Your task to perform on an android device: turn off notifications settings in the gmail app Image 0: 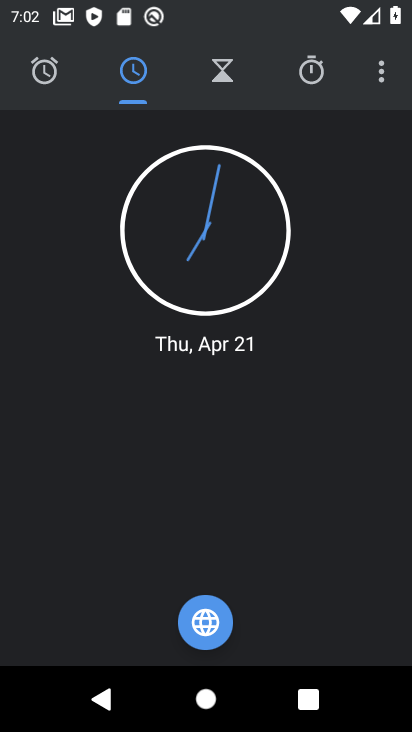
Step 0: press home button
Your task to perform on an android device: turn off notifications settings in the gmail app Image 1: 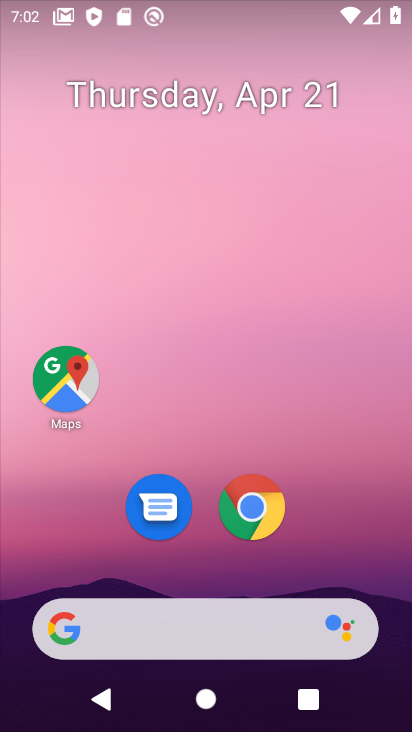
Step 1: drag from (217, 566) to (323, 11)
Your task to perform on an android device: turn off notifications settings in the gmail app Image 2: 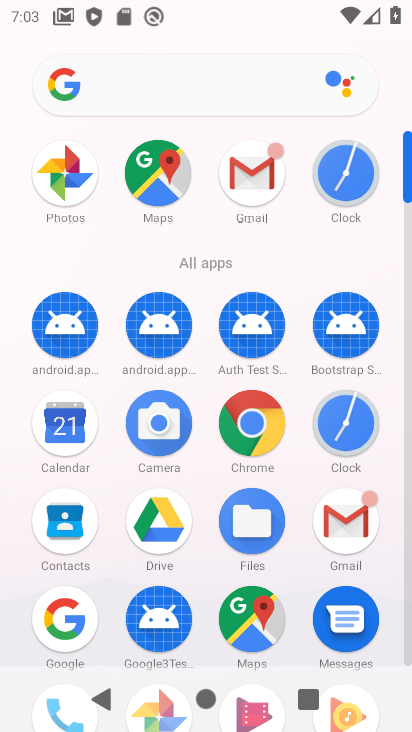
Step 2: click (343, 533)
Your task to perform on an android device: turn off notifications settings in the gmail app Image 3: 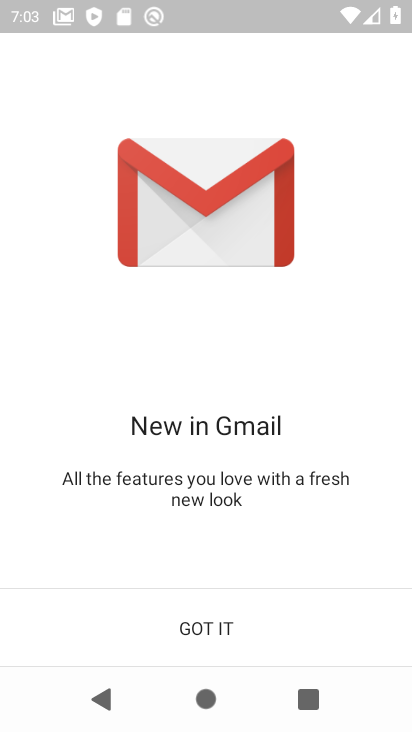
Step 3: click (207, 625)
Your task to perform on an android device: turn off notifications settings in the gmail app Image 4: 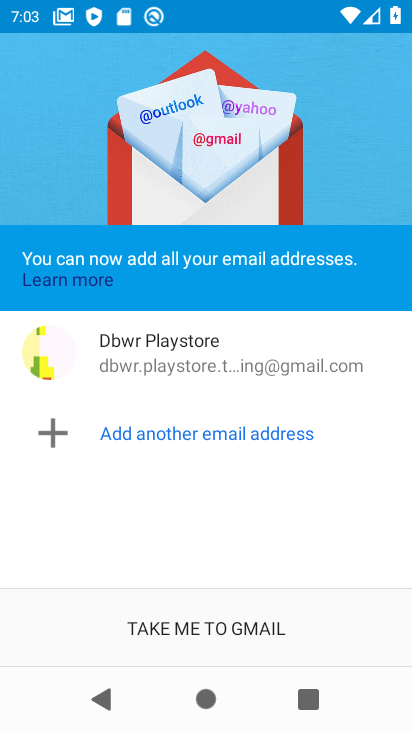
Step 4: click (207, 625)
Your task to perform on an android device: turn off notifications settings in the gmail app Image 5: 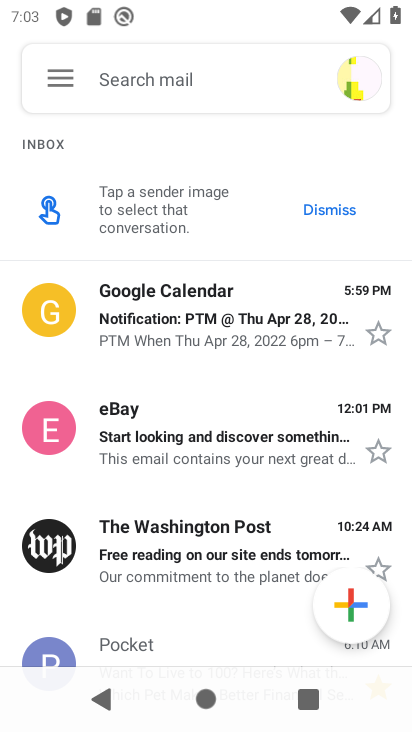
Step 5: click (58, 83)
Your task to perform on an android device: turn off notifications settings in the gmail app Image 6: 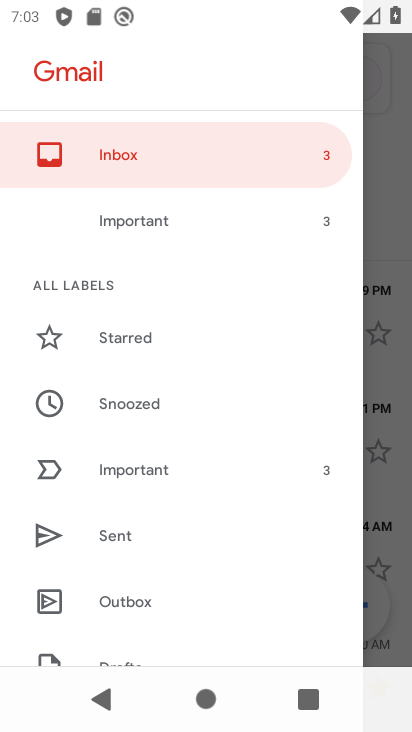
Step 6: drag from (216, 604) to (224, 213)
Your task to perform on an android device: turn off notifications settings in the gmail app Image 7: 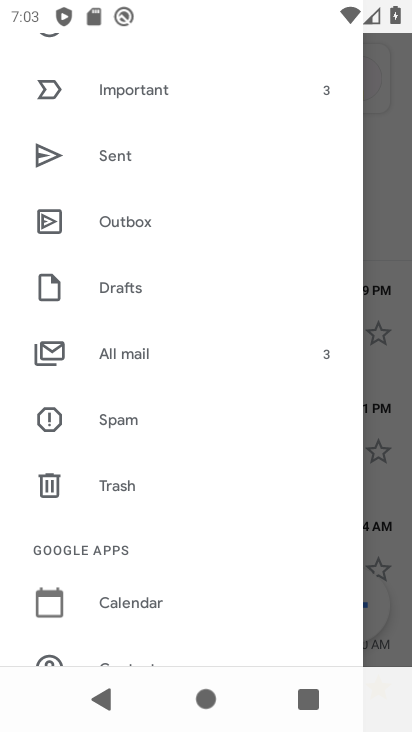
Step 7: drag from (227, 585) to (207, 66)
Your task to perform on an android device: turn off notifications settings in the gmail app Image 8: 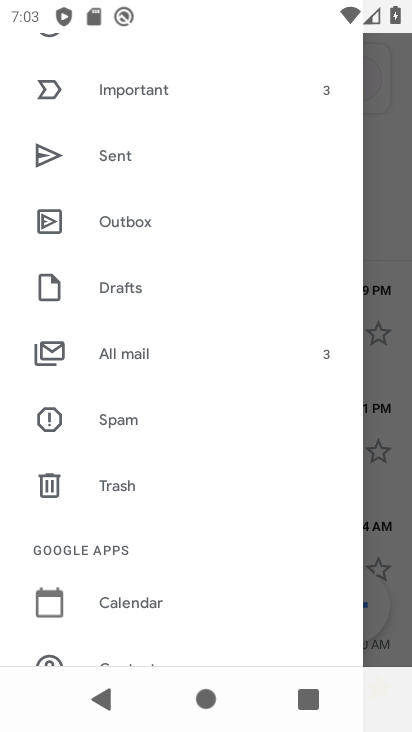
Step 8: drag from (187, 625) to (189, 272)
Your task to perform on an android device: turn off notifications settings in the gmail app Image 9: 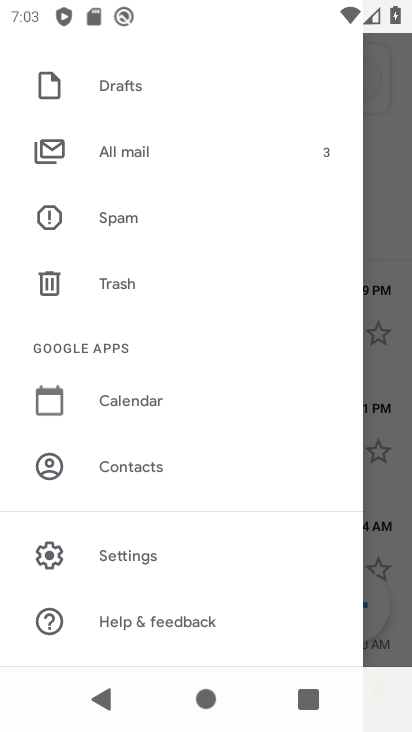
Step 9: click (115, 555)
Your task to perform on an android device: turn off notifications settings in the gmail app Image 10: 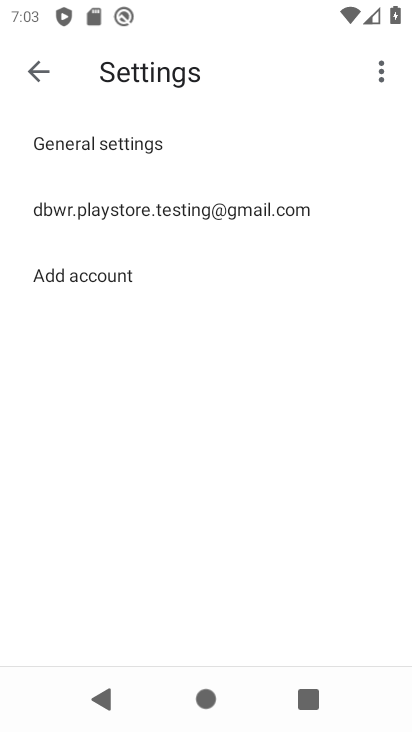
Step 10: click (94, 133)
Your task to perform on an android device: turn off notifications settings in the gmail app Image 11: 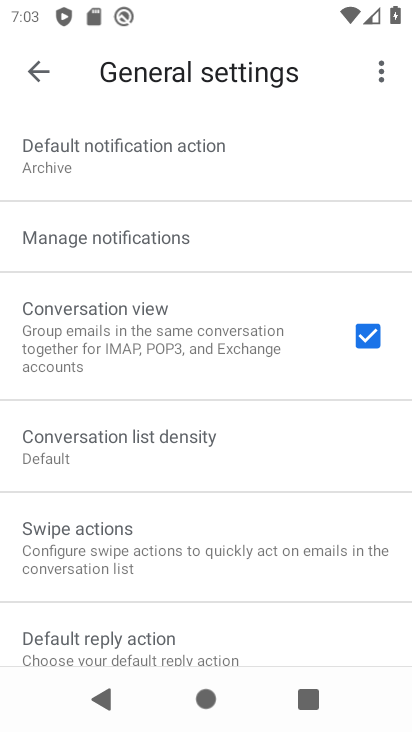
Step 11: click (115, 240)
Your task to perform on an android device: turn off notifications settings in the gmail app Image 12: 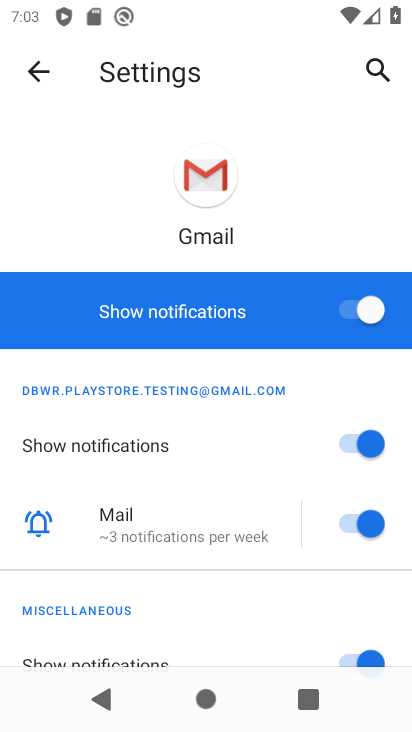
Step 12: click (374, 314)
Your task to perform on an android device: turn off notifications settings in the gmail app Image 13: 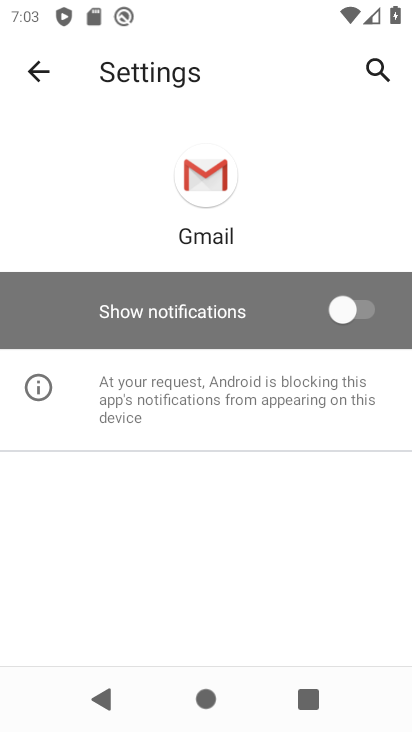
Step 13: task complete